Your task to perform on an android device: Show the shopping cart on walmart.com. Search for logitech g pro on walmart.com, select the first entry, add it to the cart, then select checkout. Image 0: 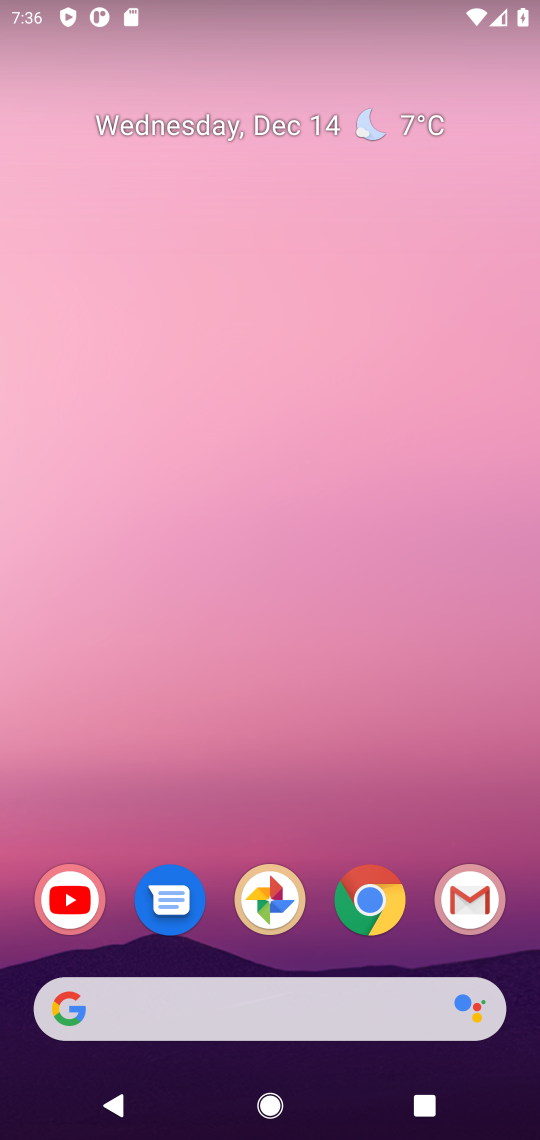
Step 0: press home button
Your task to perform on an android device: Show the shopping cart on walmart.com. Search for logitech g pro on walmart.com, select the first entry, add it to the cart, then select checkout. Image 1: 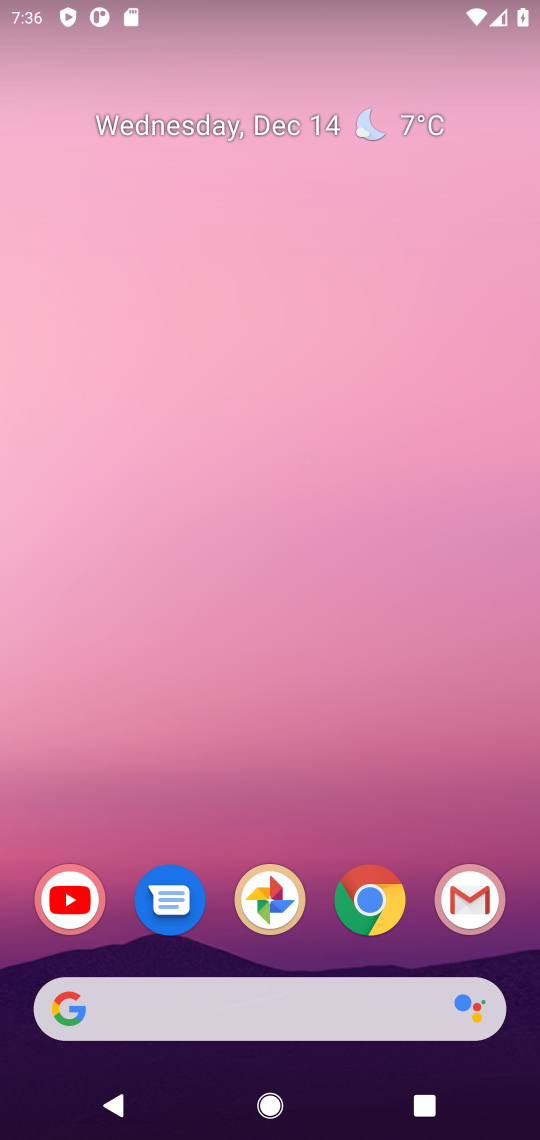
Step 1: click (270, 984)
Your task to perform on an android device: Show the shopping cart on walmart.com. Search for logitech g pro on walmart.com, select the first entry, add it to the cart, then select checkout. Image 2: 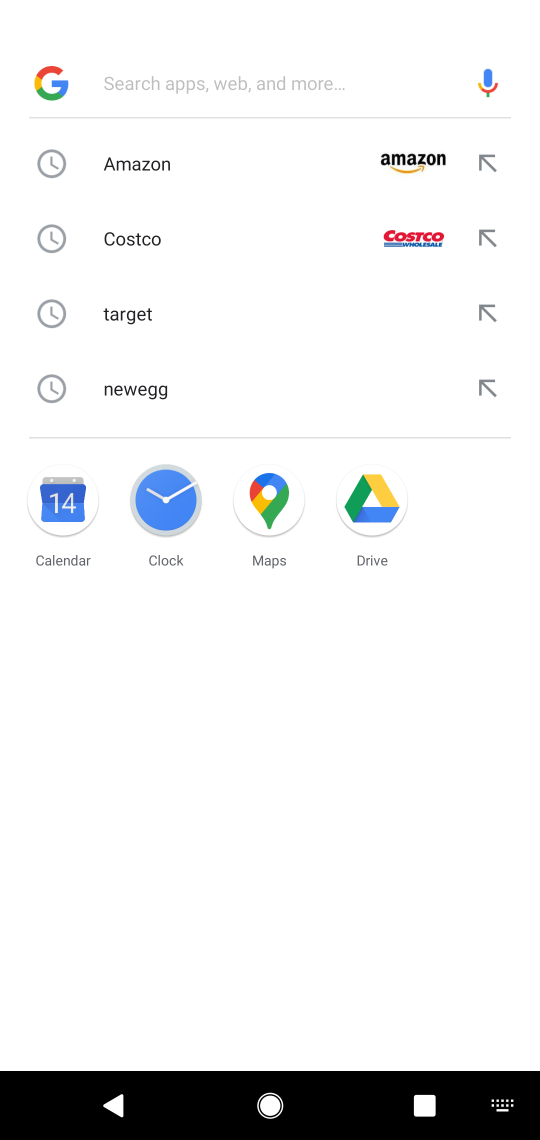
Step 2: type "walmart.com."
Your task to perform on an android device: Show the shopping cart on walmart.com. Search for logitech g pro on walmart.com, select the first entry, add it to the cart, then select checkout. Image 3: 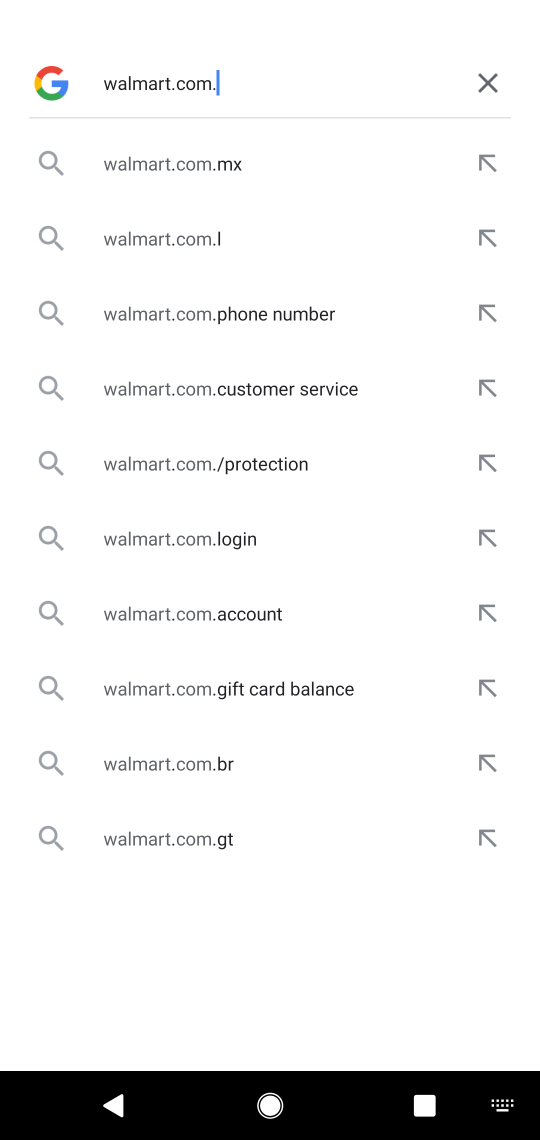
Step 3: click (462, 89)
Your task to perform on an android device: Show the shopping cart on walmart.com. Search for logitech g pro on walmart.com, select the first entry, add it to the cart, then select checkout. Image 4: 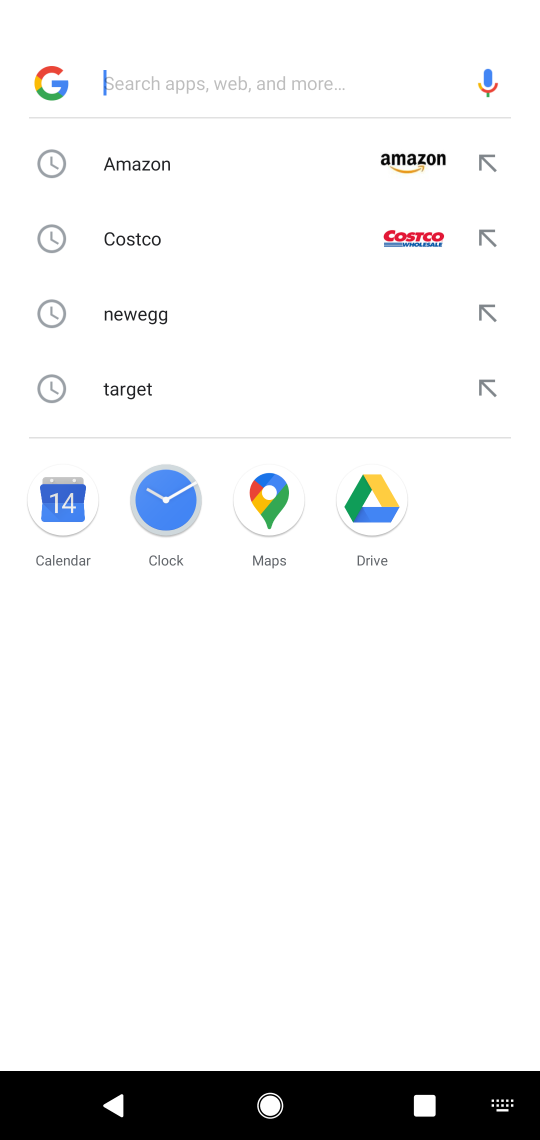
Step 4: type " walmart.com"
Your task to perform on an android device: Show the shopping cart on walmart.com. Search for logitech g pro on walmart.com, select the first entry, add it to the cart, then select checkout. Image 5: 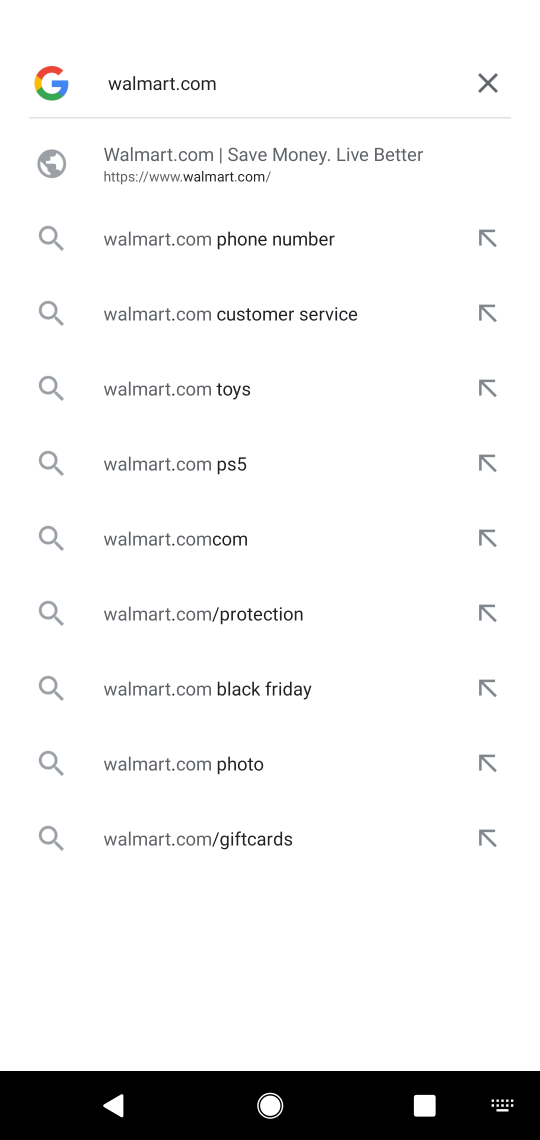
Step 5: click (220, 166)
Your task to perform on an android device: Show the shopping cart on walmart.com. Search for logitech g pro on walmart.com, select the first entry, add it to the cart, then select checkout. Image 6: 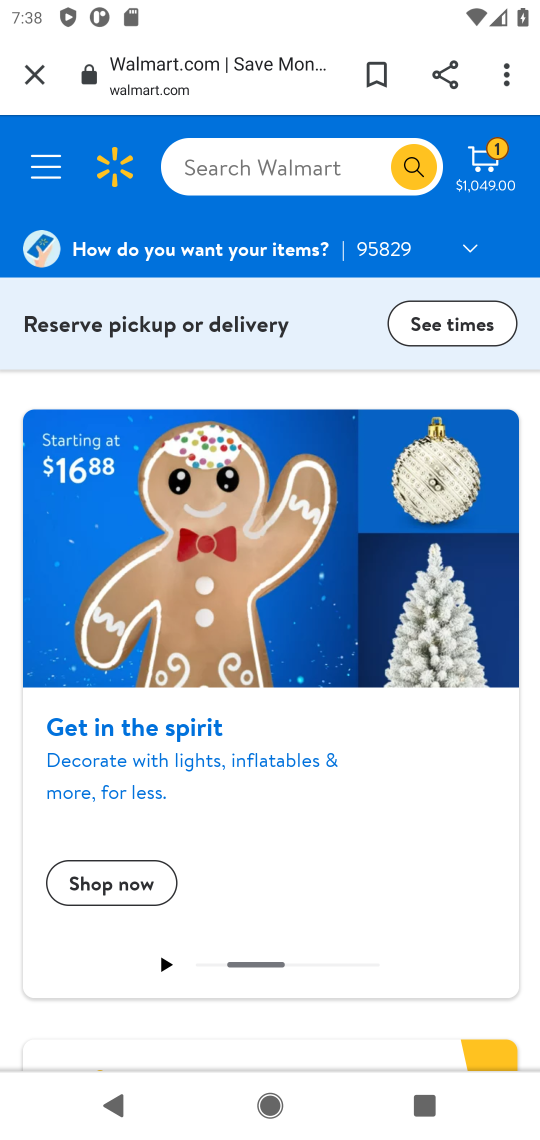
Step 6: click (487, 158)
Your task to perform on an android device: Show the shopping cart on walmart.com. Search for logitech g pro on walmart.com, select the first entry, add it to the cart, then select checkout. Image 7: 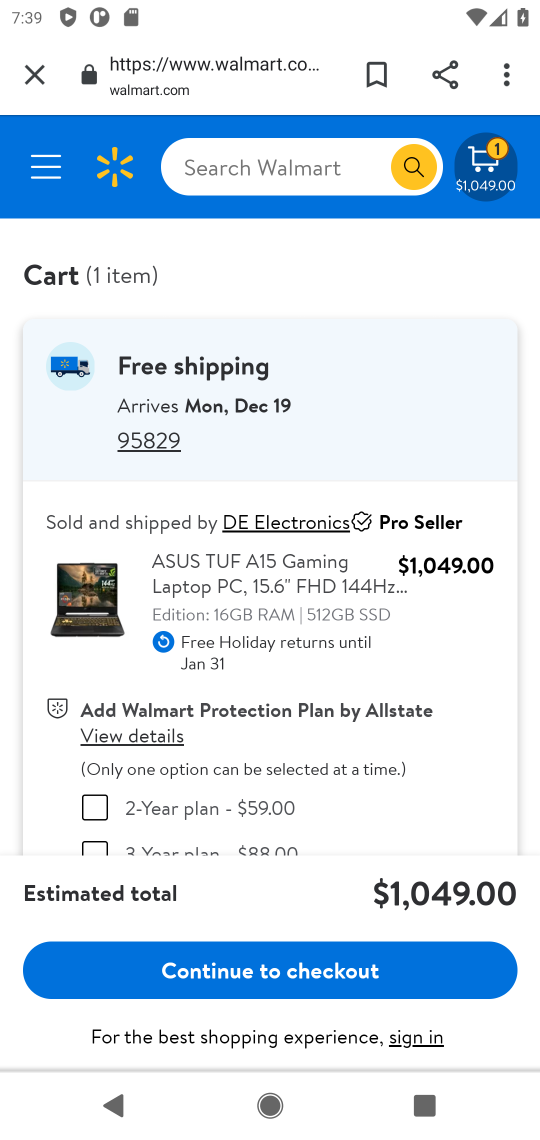
Step 7: click (238, 156)
Your task to perform on an android device: Show the shopping cart on walmart.com. Search for logitech g pro on walmart.com, select the first entry, add it to the cart, then select checkout. Image 8: 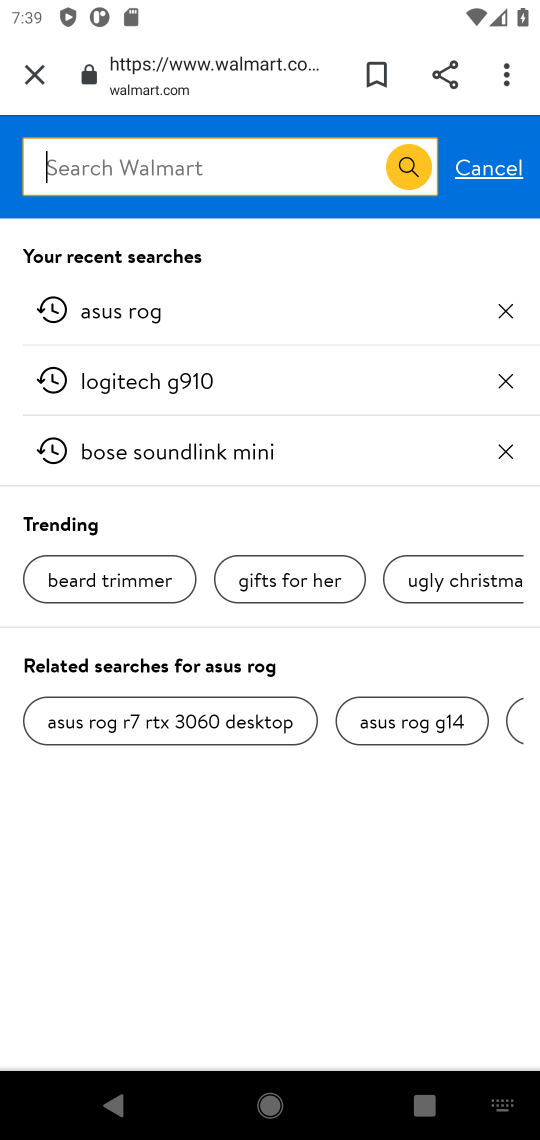
Step 8: type "logitech g pro"
Your task to perform on an android device: Show the shopping cart on walmart.com. Search for logitech g pro on walmart.com, select the first entry, add it to the cart, then select checkout. Image 9: 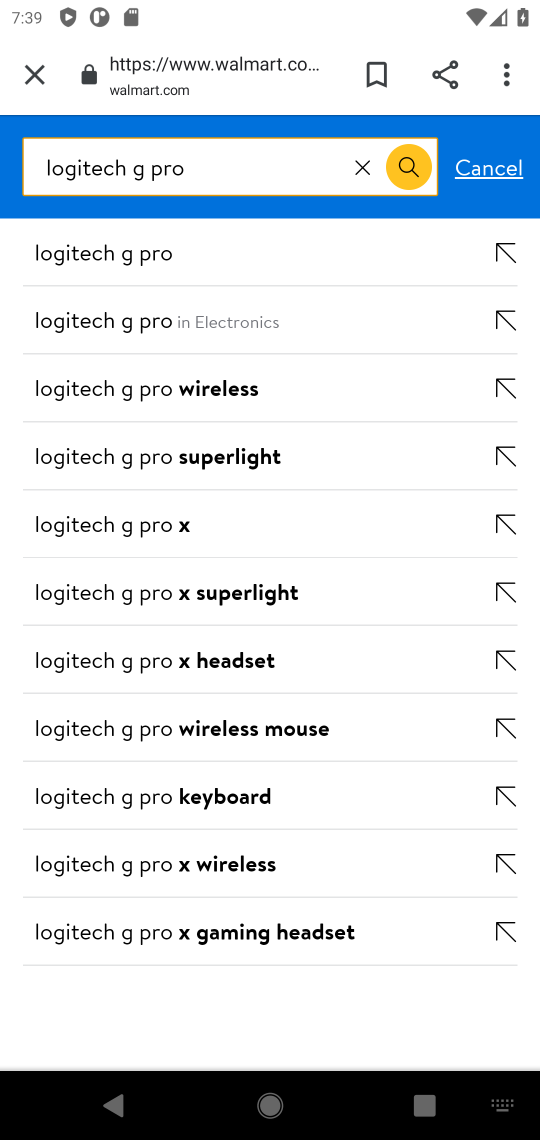
Step 9: click (405, 153)
Your task to perform on an android device: Show the shopping cart on walmart.com. Search for logitech g pro on walmart.com, select the first entry, add it to the cart, then select checkout. Image 10: 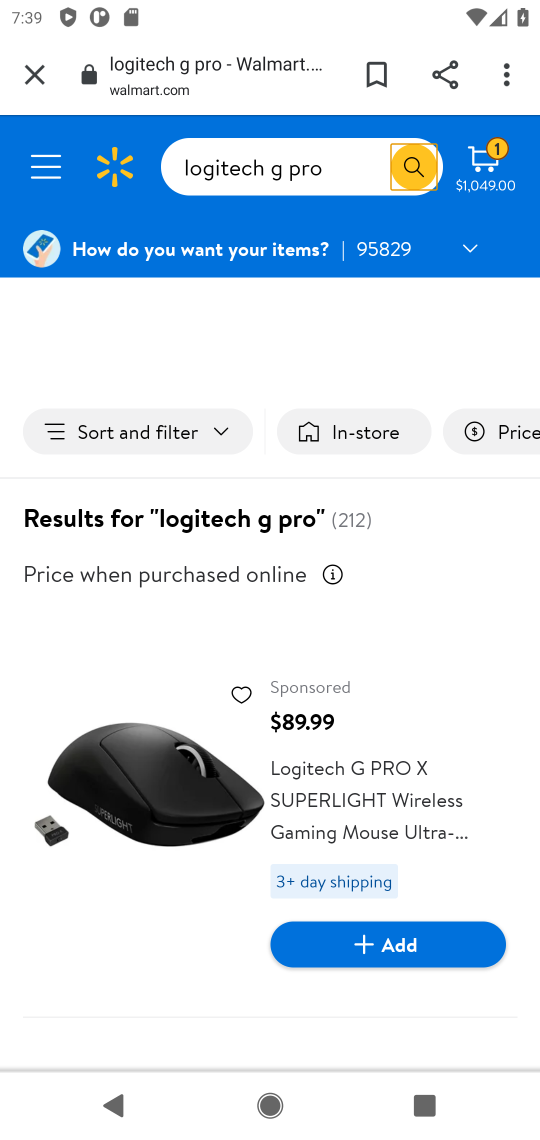
Step 10: click (356, 948)
Your task to perform on an android device: Show the shopping cart on walmart.com. Search for logitech g pro on walmart.com, select the first entry, add it to the cart, then select checkout. Image 11: 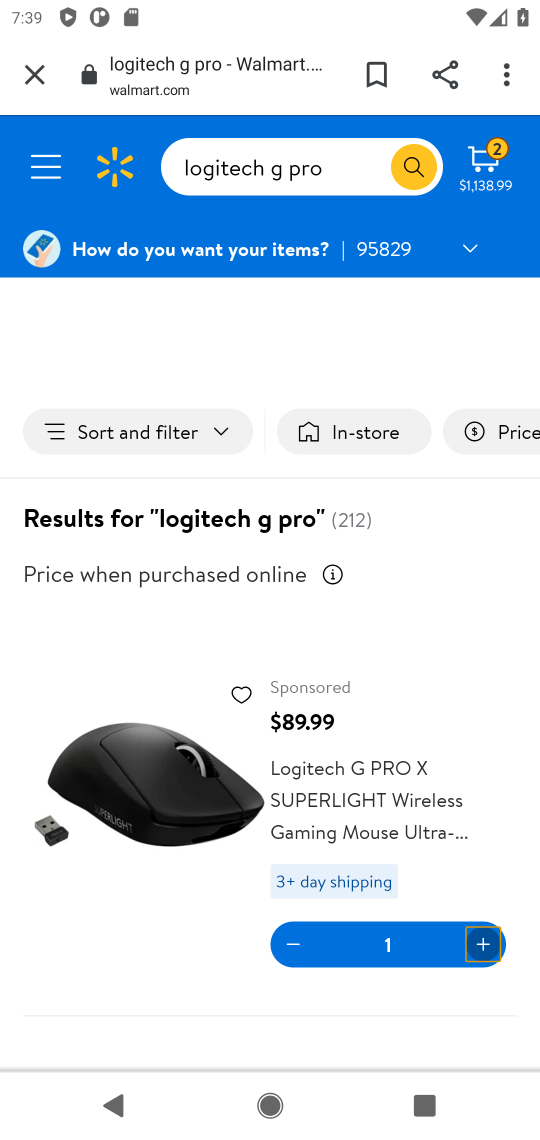
Step 11: click (496, 167)
Your task to perform on an android device: Show the shopping cart on walmart.com. Search for logitech g pro on walmart.com, select the first entry, add it to the cart, then select checkout. Image 12: 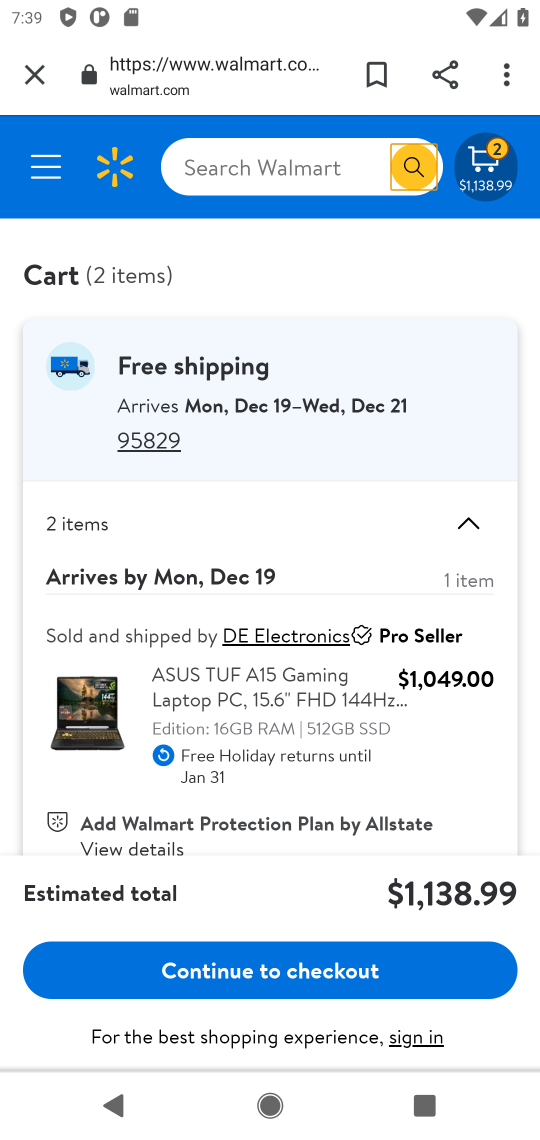
Step 12: click (250, 974)
Your task to perform on an android device: Show the shopping cart on walmart.com. Search for logitech g pro on walmart.com, select the first entry, add it to the cart, then select checkout. Image 13: 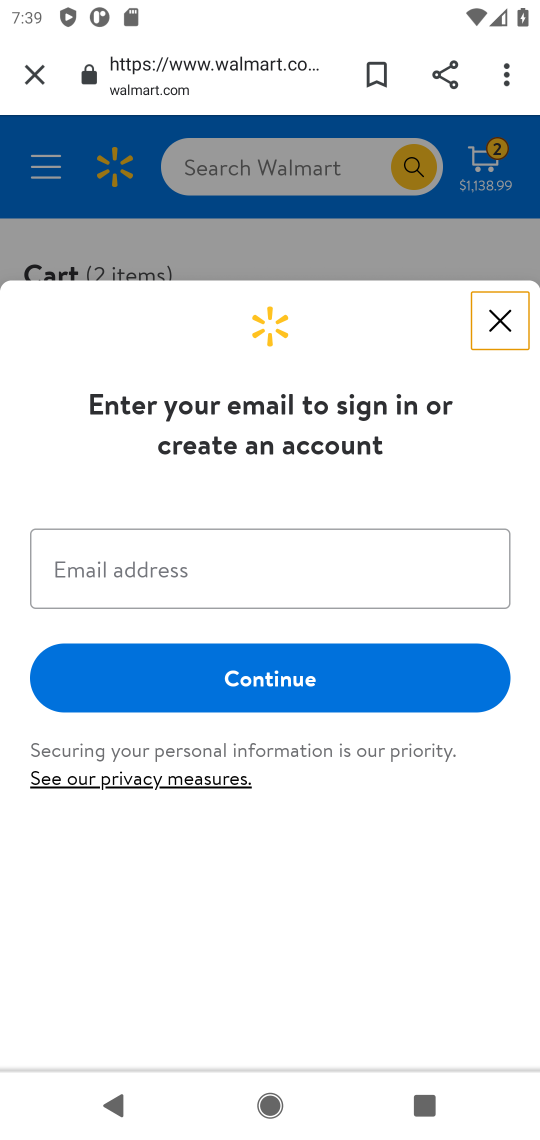
Step 13: task complete